Your task to perform on an android device: toggle translation in the chrome app Image 0: 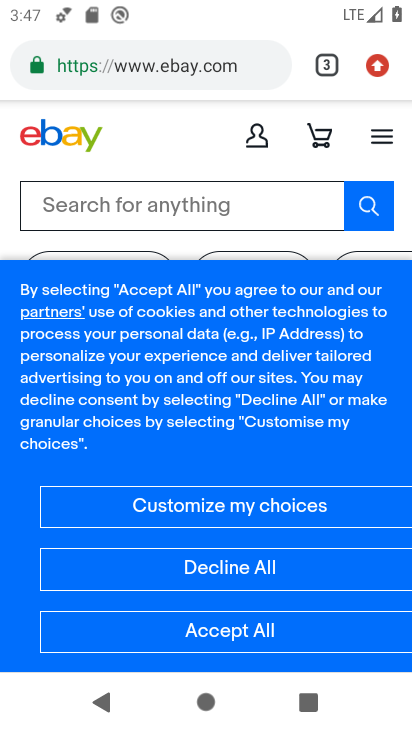
Step 0: click (373, 62)
Your task to perform on an android device: toggle translation in the chrome app Image 1: 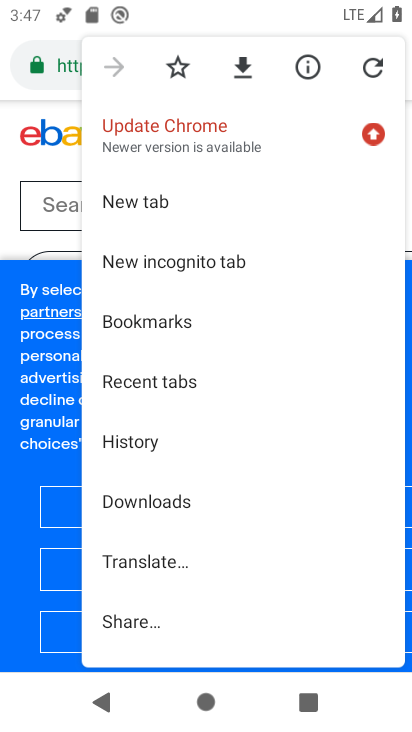
Step 1: drag from (264, 627) to (294, 173)
Your task to perform on an android device: toggle translation in the chrome app Image 2: 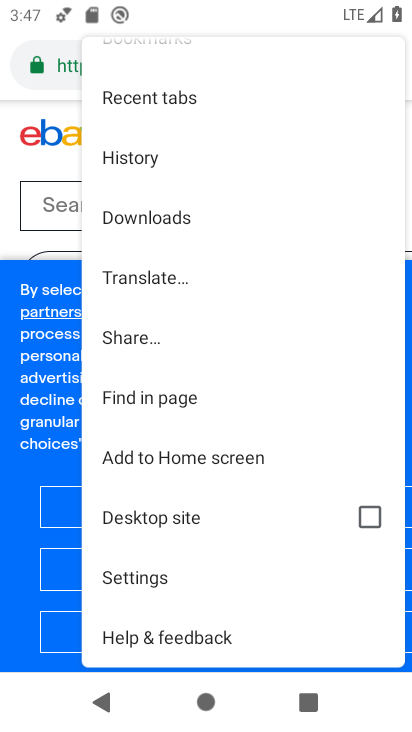
Step 2: click (143, 579)
Your task to perform on an android device: toggle translation in the chrome app Image 3: 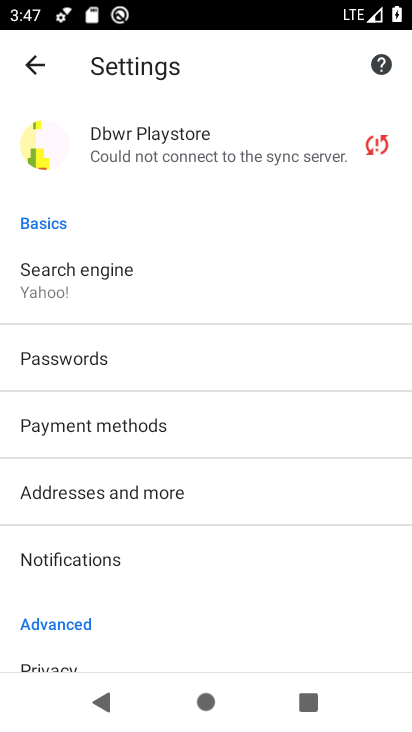
Step 3: drag from (240, 613) to (238, 154)
Your task to perform on an android device: toggle translation in the chrome app Image 4: 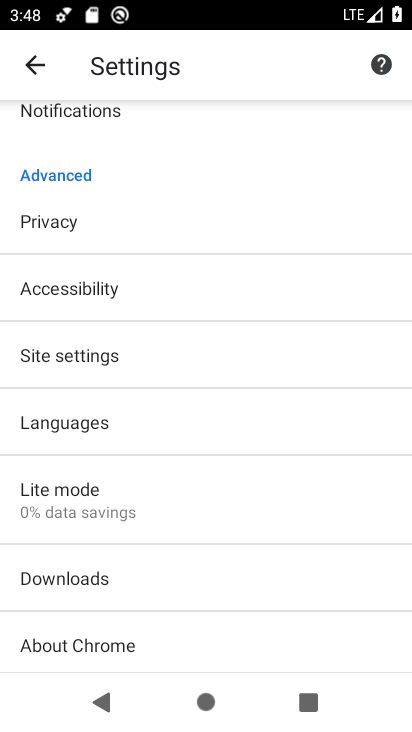
Step 4: click (45, 427)
Your task to perform on an android device: toggle translation in the chrome app Image 5: 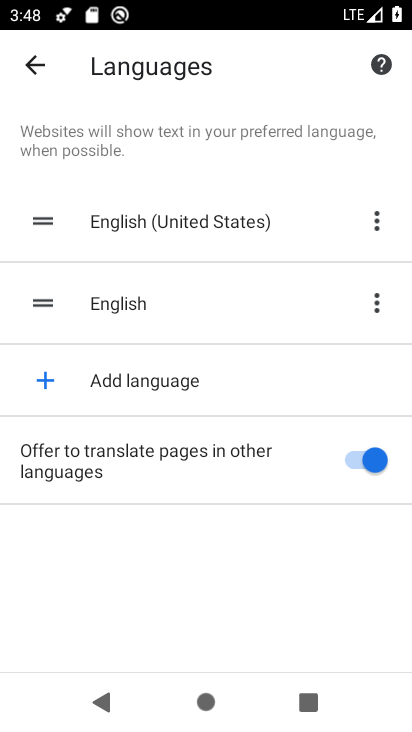
Step 5: click (346, 450)
Your task to perform on an android device: toggle translation in the chrome app Image 6: 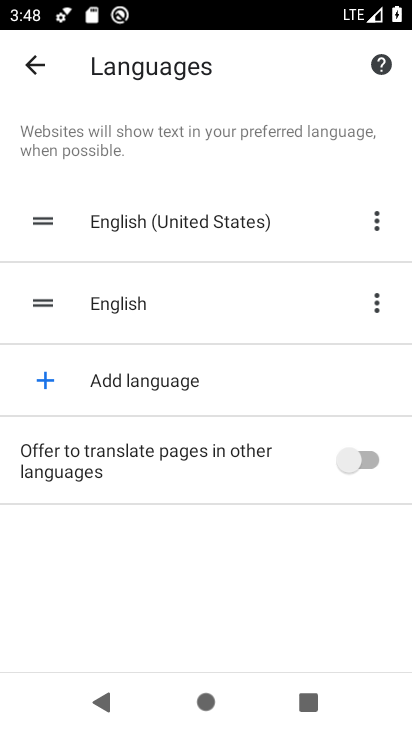
Step 6: task complete